Your task to perform on an android device: change the clock display to analog Image 0: 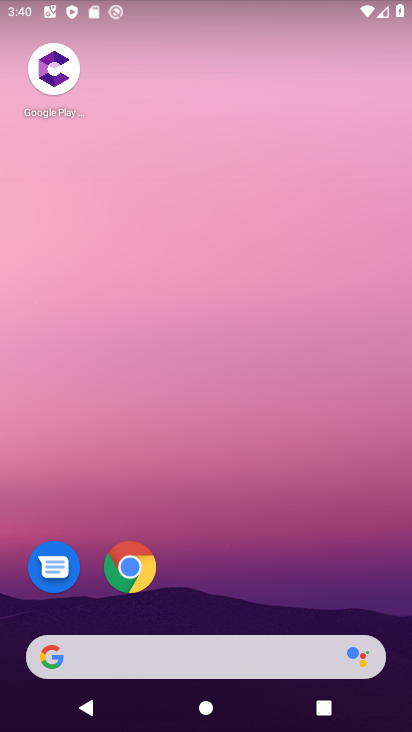
Step 0: drag from (217, 603) to (214, 81)
Your task to perform on an android device: change the clock display to analog Image 1: 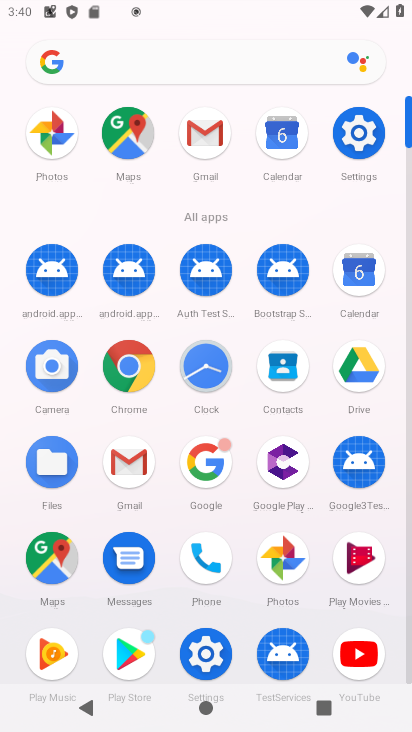
Step 1: click (203, 366)
Your task to perform on an android device: change the clock display to analog Image 2: 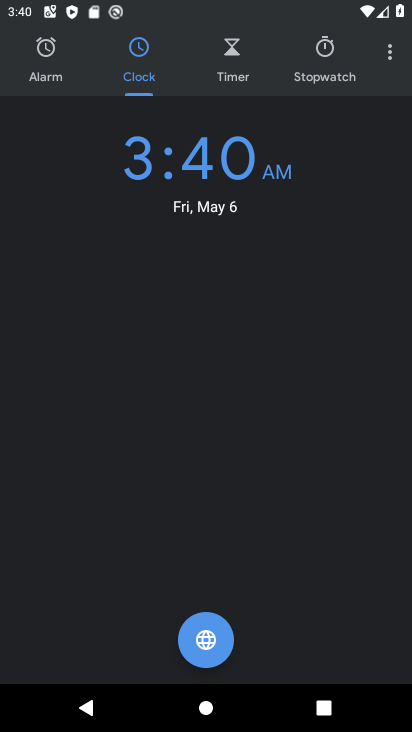
Step 2: click (390, 51)
Your task to perform on an android device: change the clock display to analog Image 3: 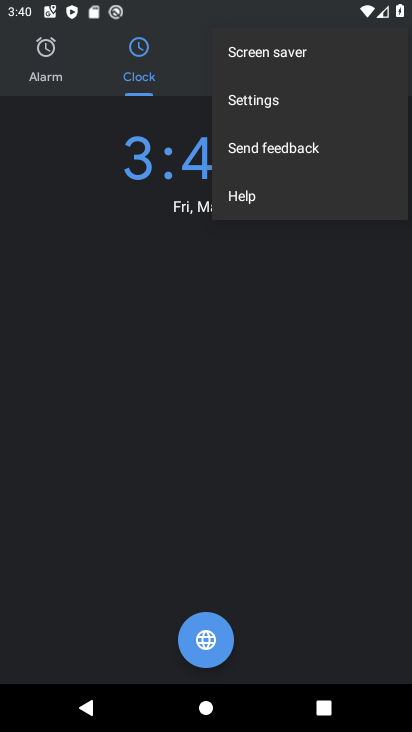
Step 3: click (262, 105)
Your task to perform on an android device: change the clock display to analog Image 4: 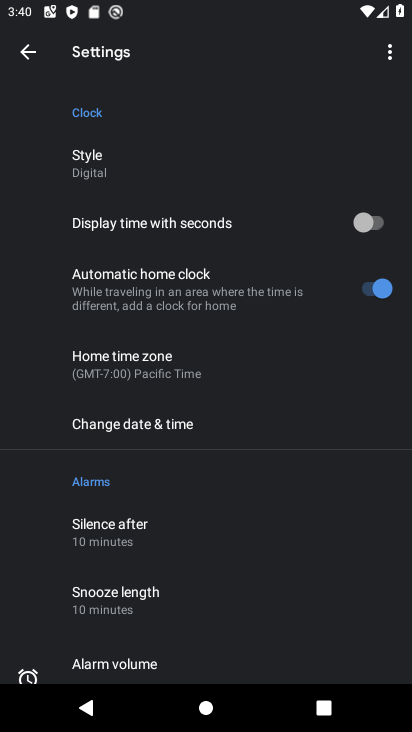
Step 4: click (117, 165)
Your task to perform on an android device: change the clock display to analog Image 5: 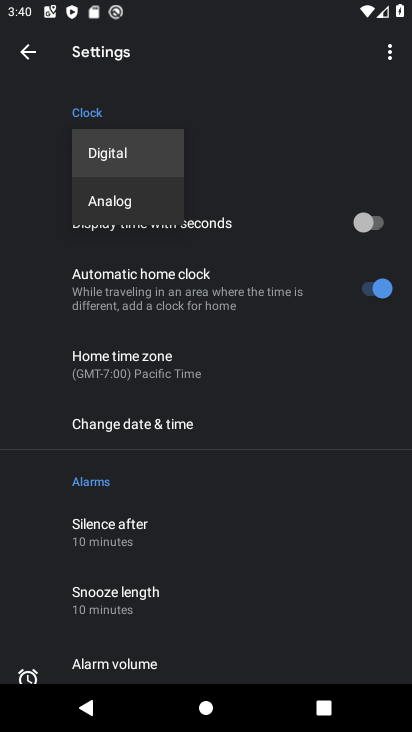
Step 5: click (114, 198)
Your task to perform on an android device: change the clock display to analog Image 6: 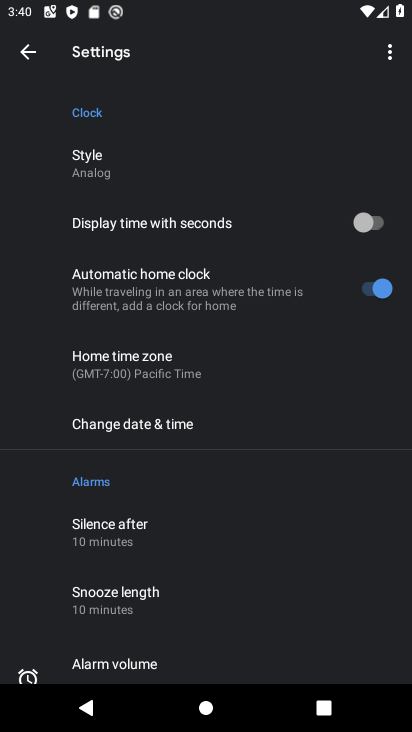
Step 6: task complete